Your task to perform on an android device: change the clock display to show seconds Image 0: 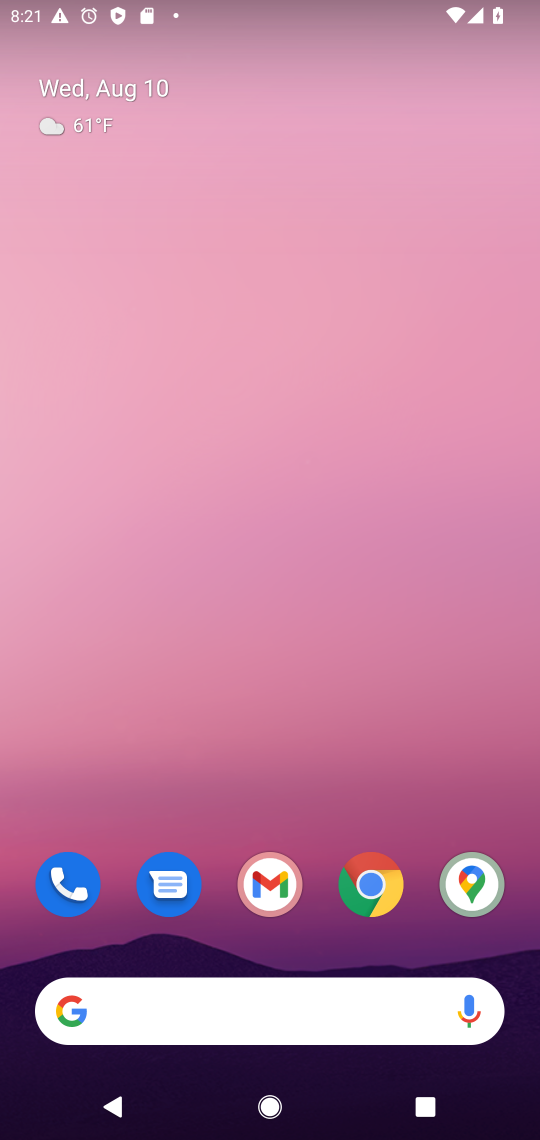
Step 0: drag from (32, 1105) to (269, 285)
Your task to perform on an android device: change the clock display to show seconds Image 1: 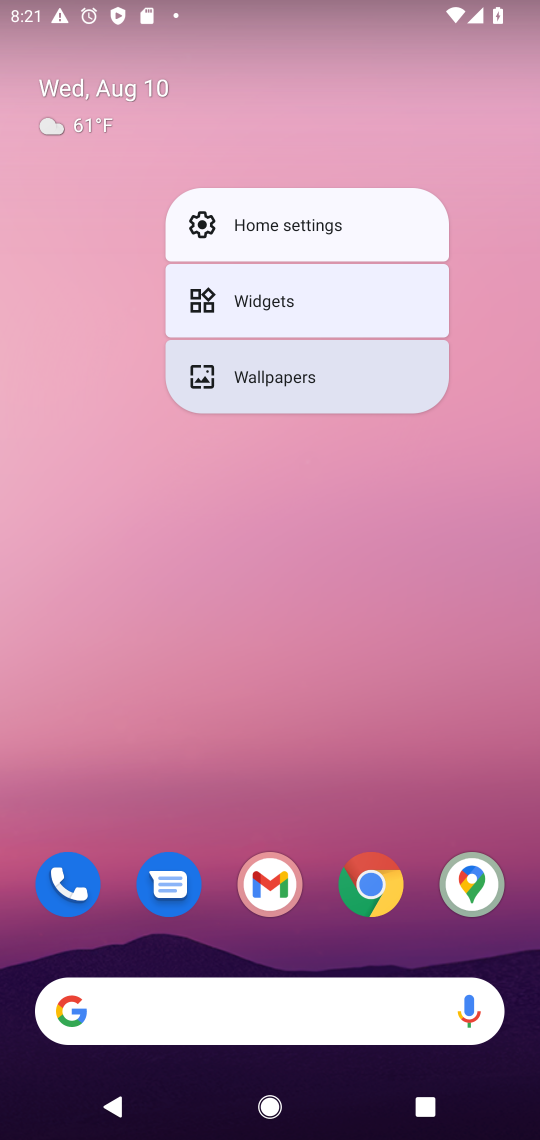
Step 1: drag from (38, 1061) to (276, 119)
Your task to perform on an android device: change the clock display to show seconds Image 2: 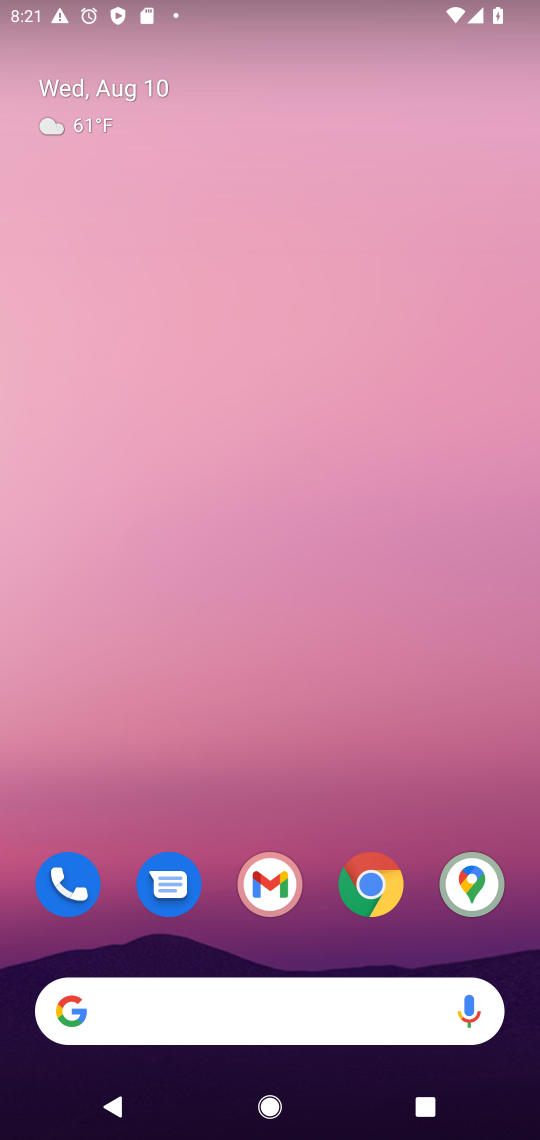
Step 2: drag from (42, 1077) to (165, 390)
Your task to perform on an android device: change the clock display to show seconds Image 3: 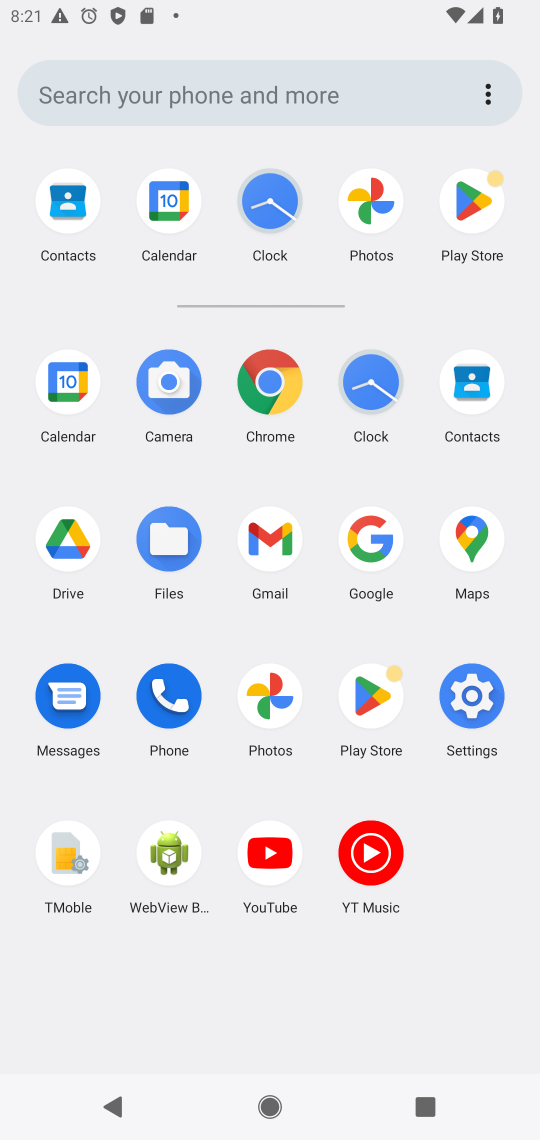
Step 3: click (258, 213)
Your task to perform on an android device: change the clock display to show seconds Image 4: 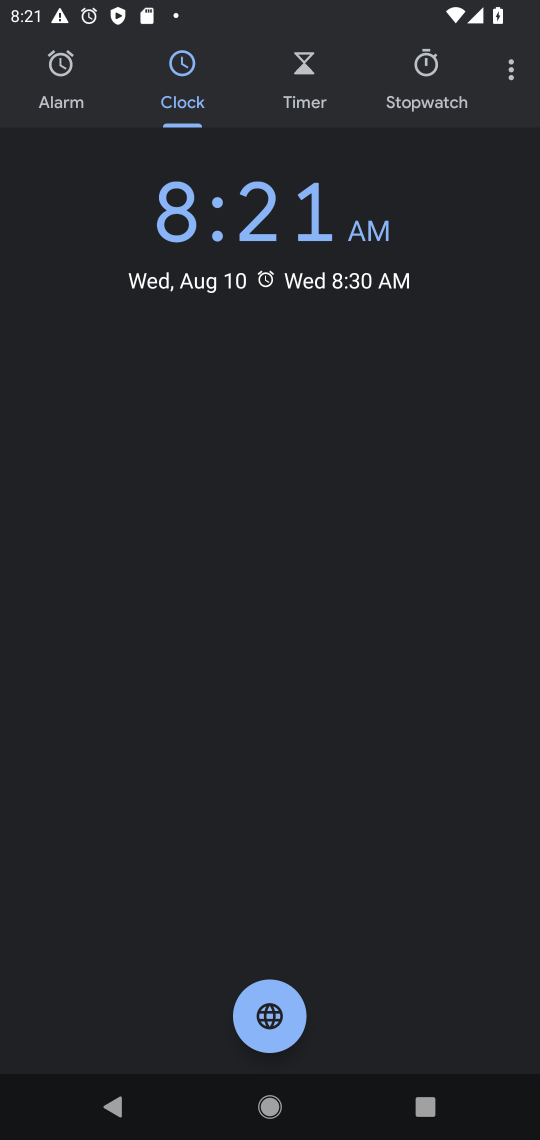
Step 4: click (514, 72)
Your task to perform on an android device: change the clock display to show seconds Image 5: 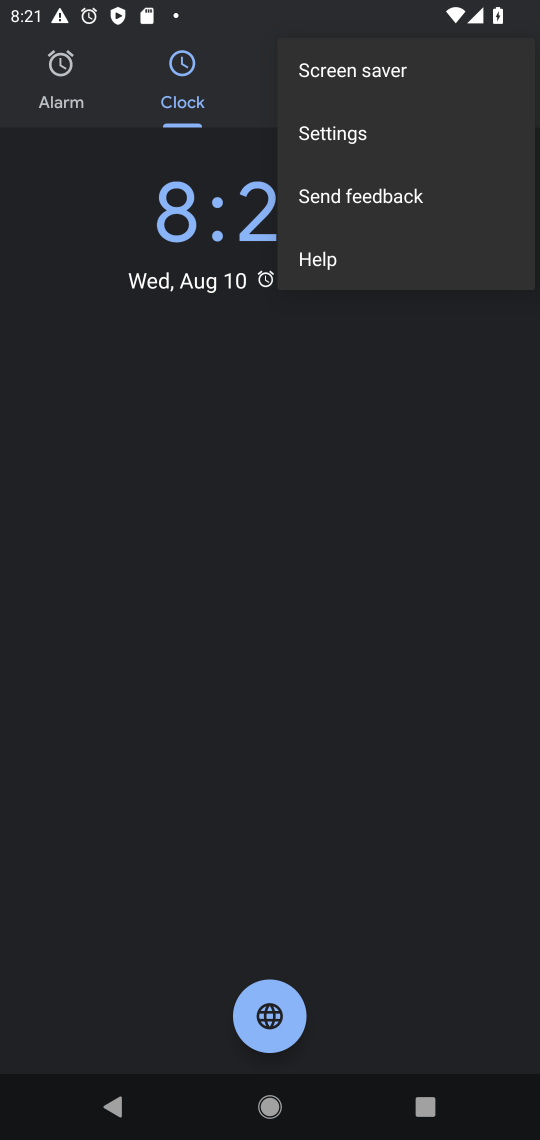
Step 5: click (346, 130)
Your task to perform on an android device: change the clock display to show seconds Image 6: 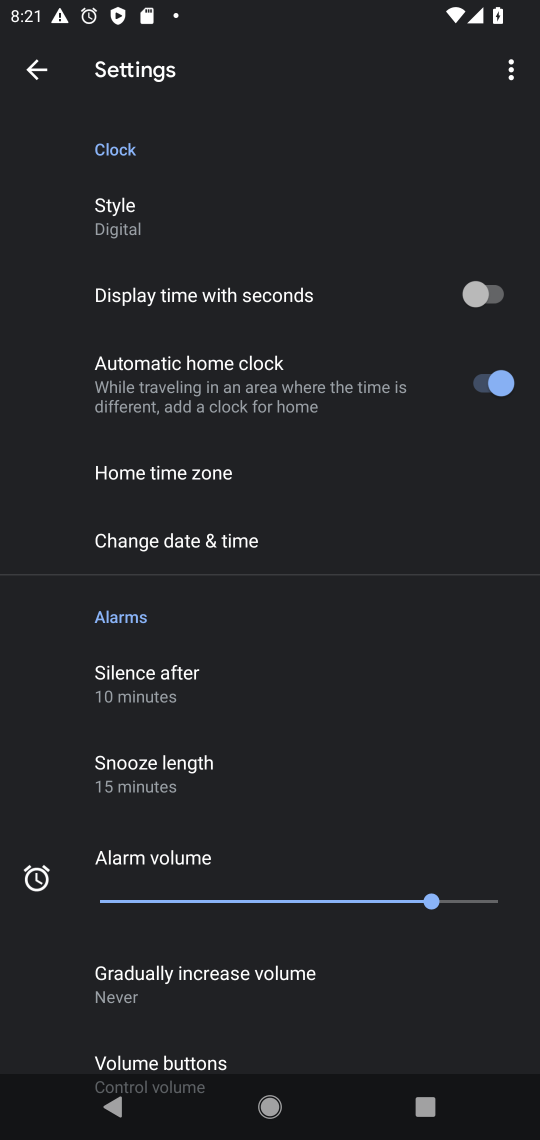
Step 6: click (490, 301)
Your task to perform on an android device: change the clock display to show seconds Image 7: 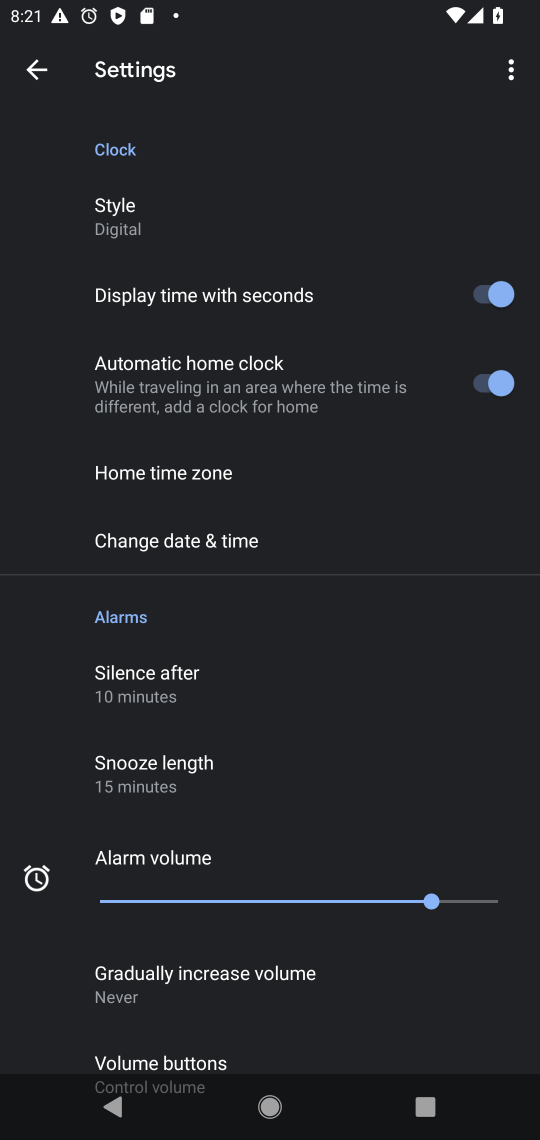
Step 7: task complete